Your task to perform on an android device: change notifications settings Image 0: 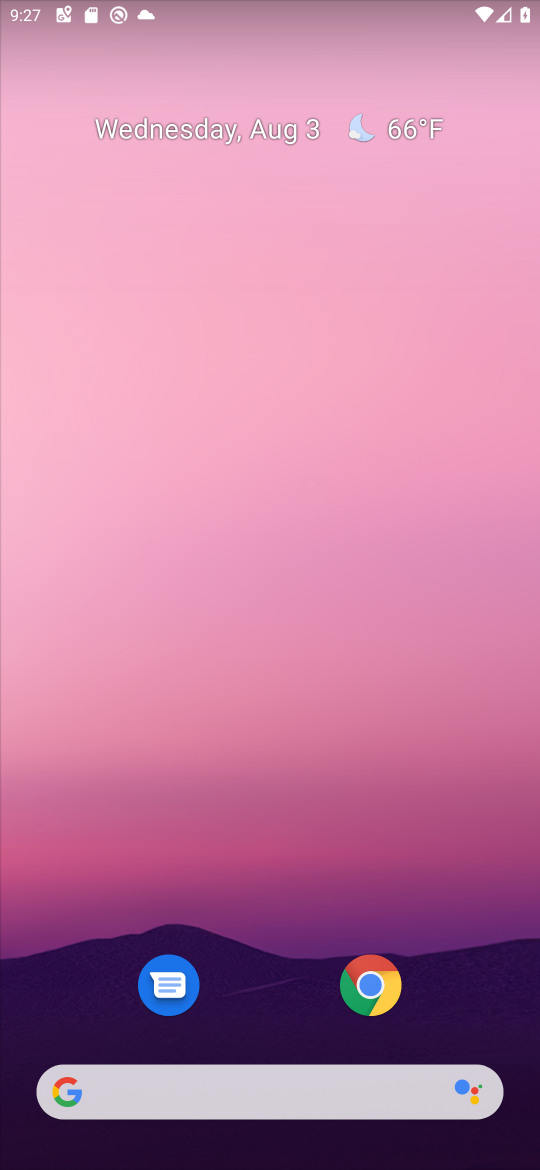
Step 0: drag from (253, 963) to (251, 153)
Your task to perform on an android device: change notifications settings Image 1: 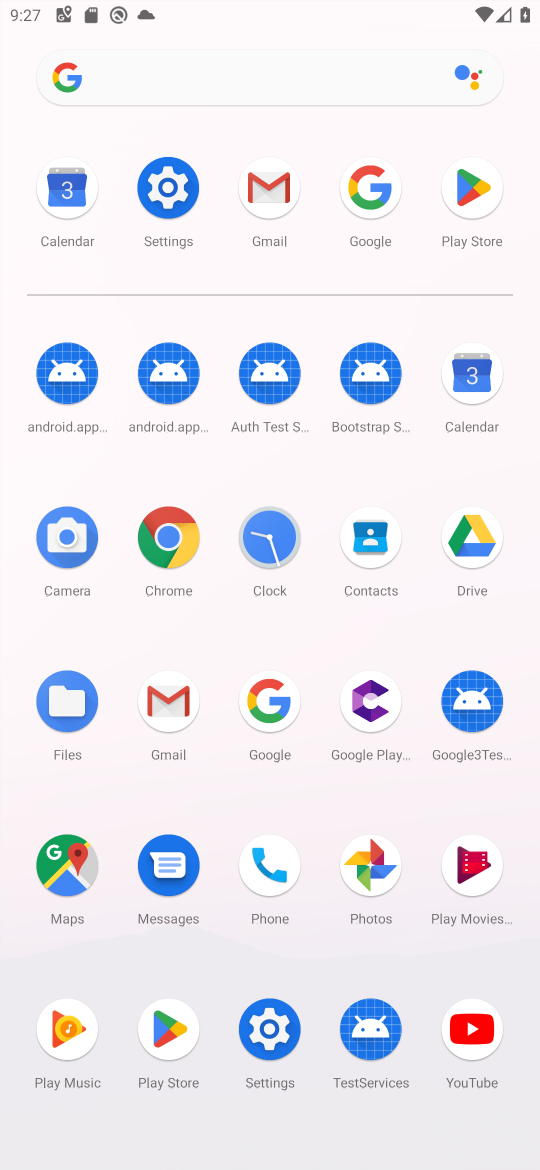
Step 1: click (180, 175)
Your task to perform on an android device: change notifications settings Image 2: 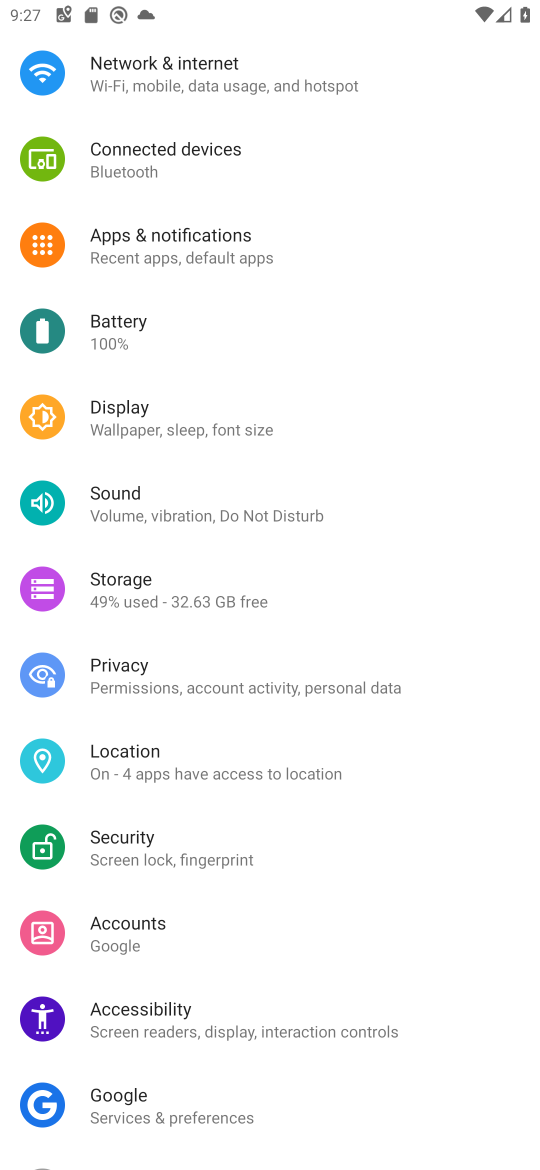
Step 2: click (219, 266)
Your task to perform on an android device: change notifications settings Image 3: 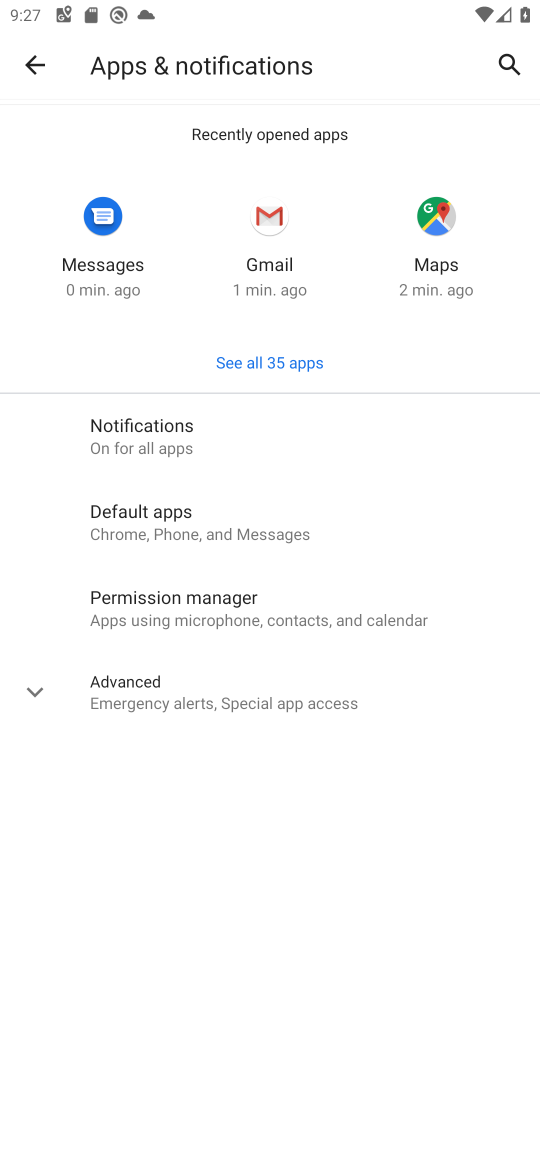
Step 3: click (208, 425)
Your task to perform on an android device: change notifications settings Image 4: 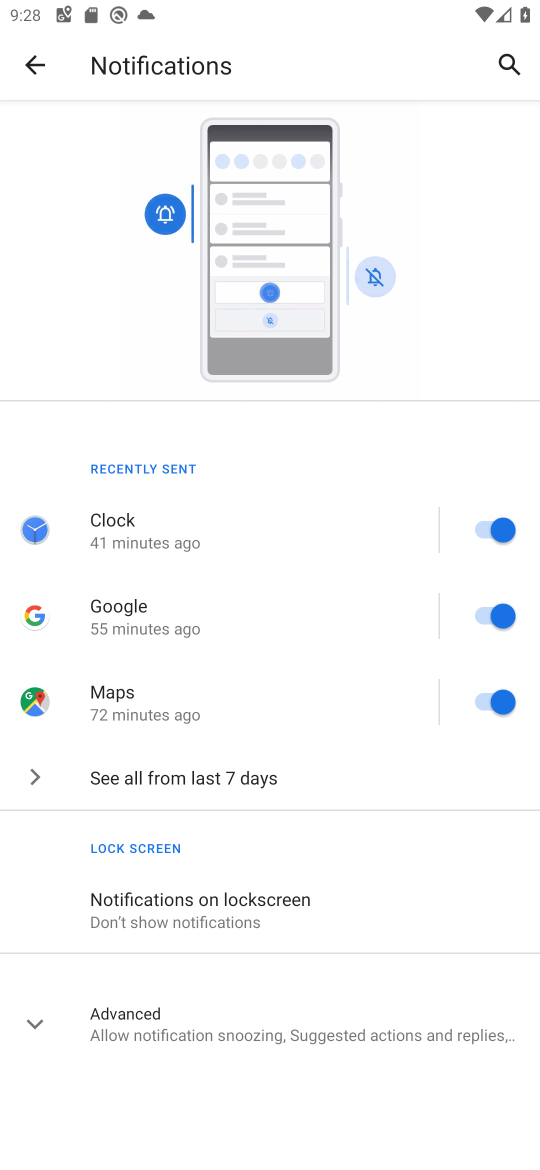
Step 4: click (211, 910)
Your task to perform on an android device: change notifications settings Image 5: 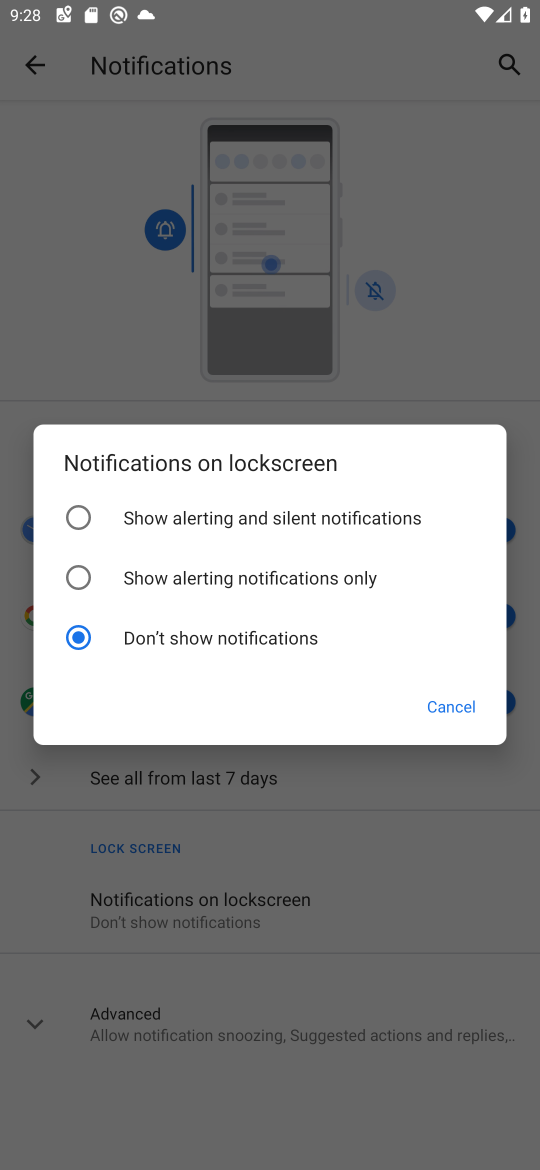
Step 5: click (158, 516)
Your task to perform on an android device: change notifications settings Image 6: 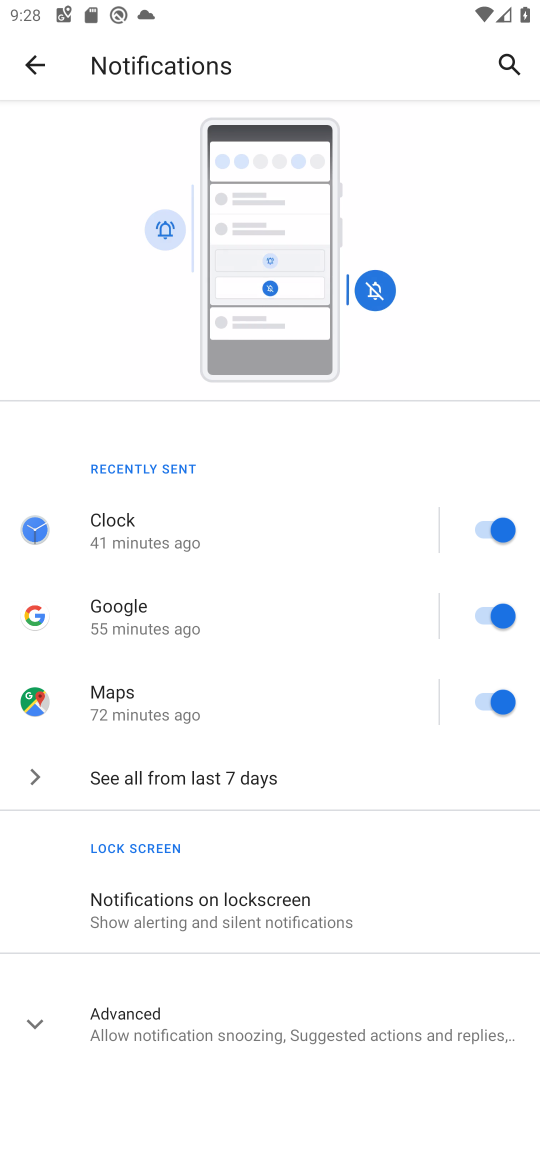
Step 6: task complete